Your task to perform on an android device: open app "Grab" (install if not already installed), go to login, and select forgot password Image 0: 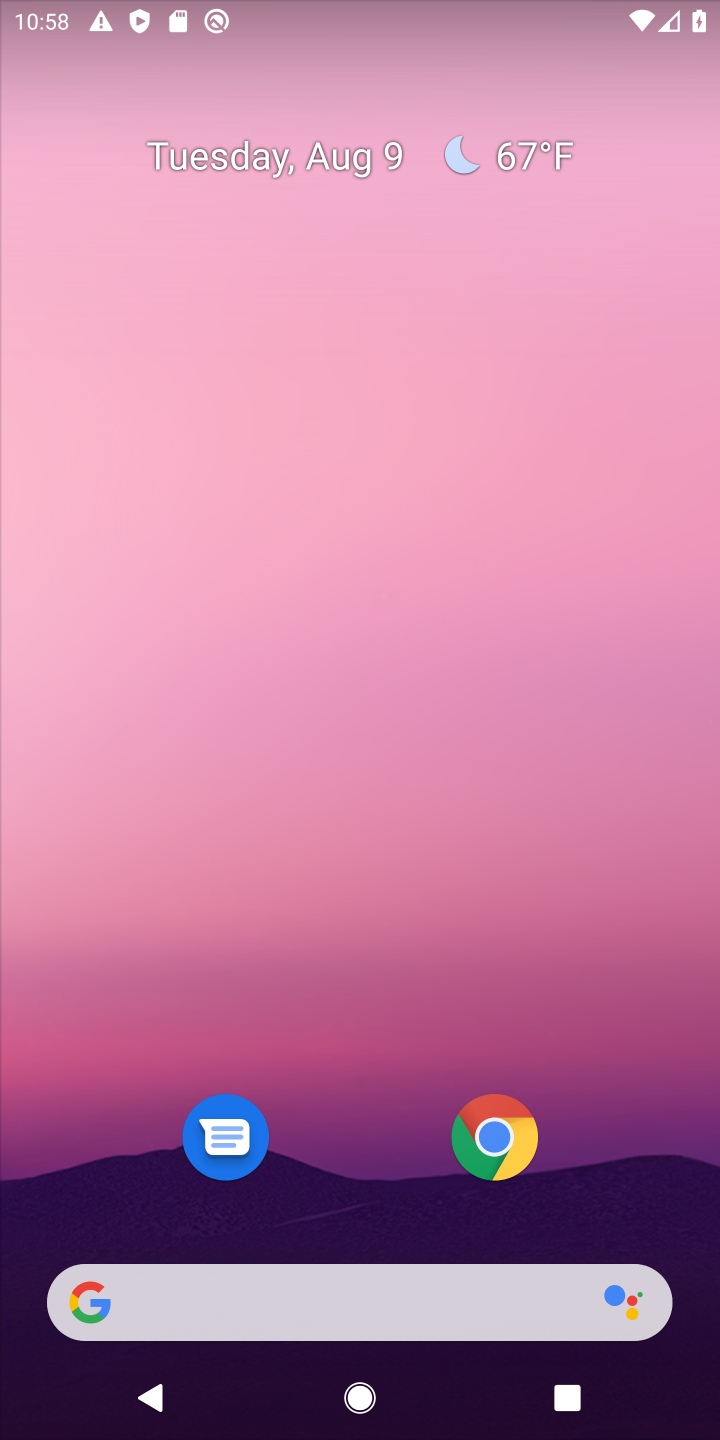
Step 0: drag from (624, 1202) to (381, 24)
Your task to perform on an android device: open app "Grab" (install if not already installed), go to login, and select forgot password Image 1: 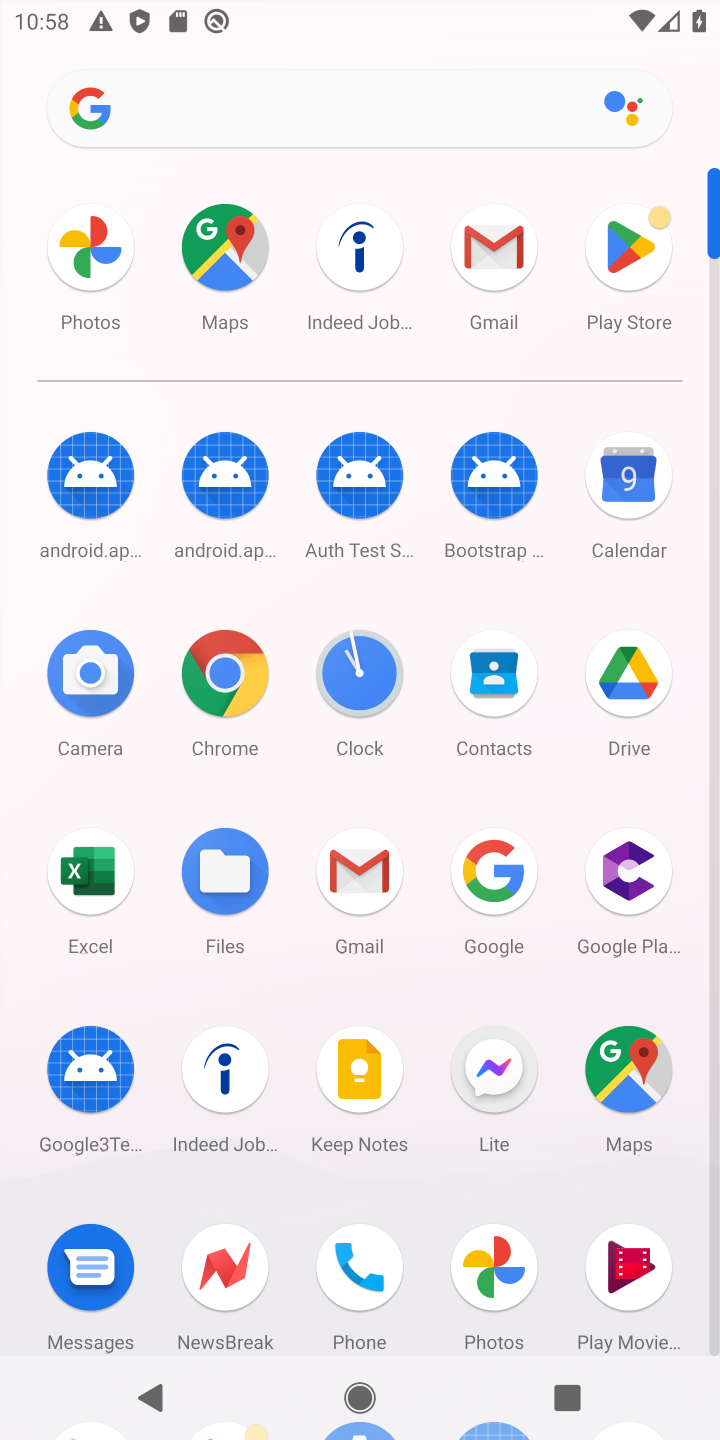
Step 1: click (647, 248)
Your task to perform on an android device: open app "Grab" (install if not already installed), go to login, and select forgot password Image 2: 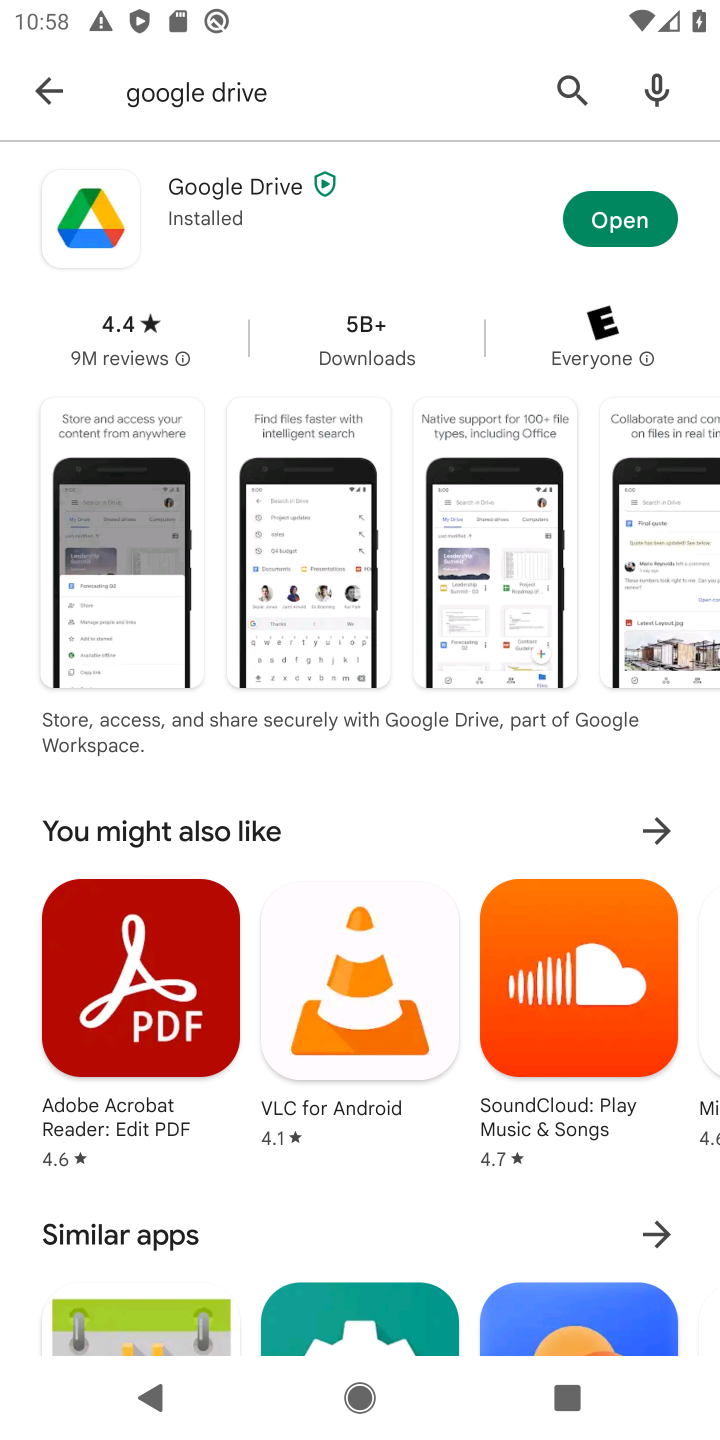
Step 2: press back button
Your task to perform on an android device: open app "Grab" (install if not already installed), go to login, and select forgot password Image 3: 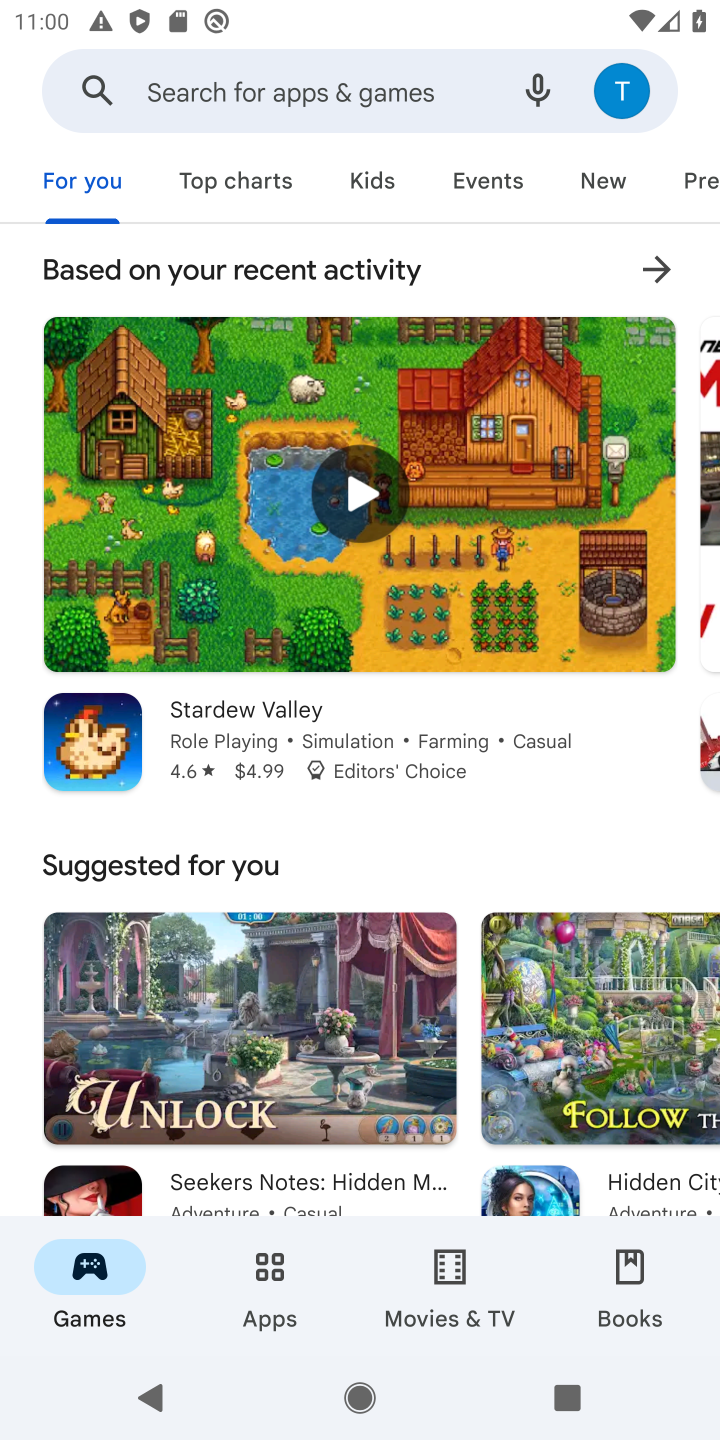
Step 3: click (282, 113)
Your task to perform on an android device: open app "Grab" (install if not already installed), go to login, and select forgot password Image 4: 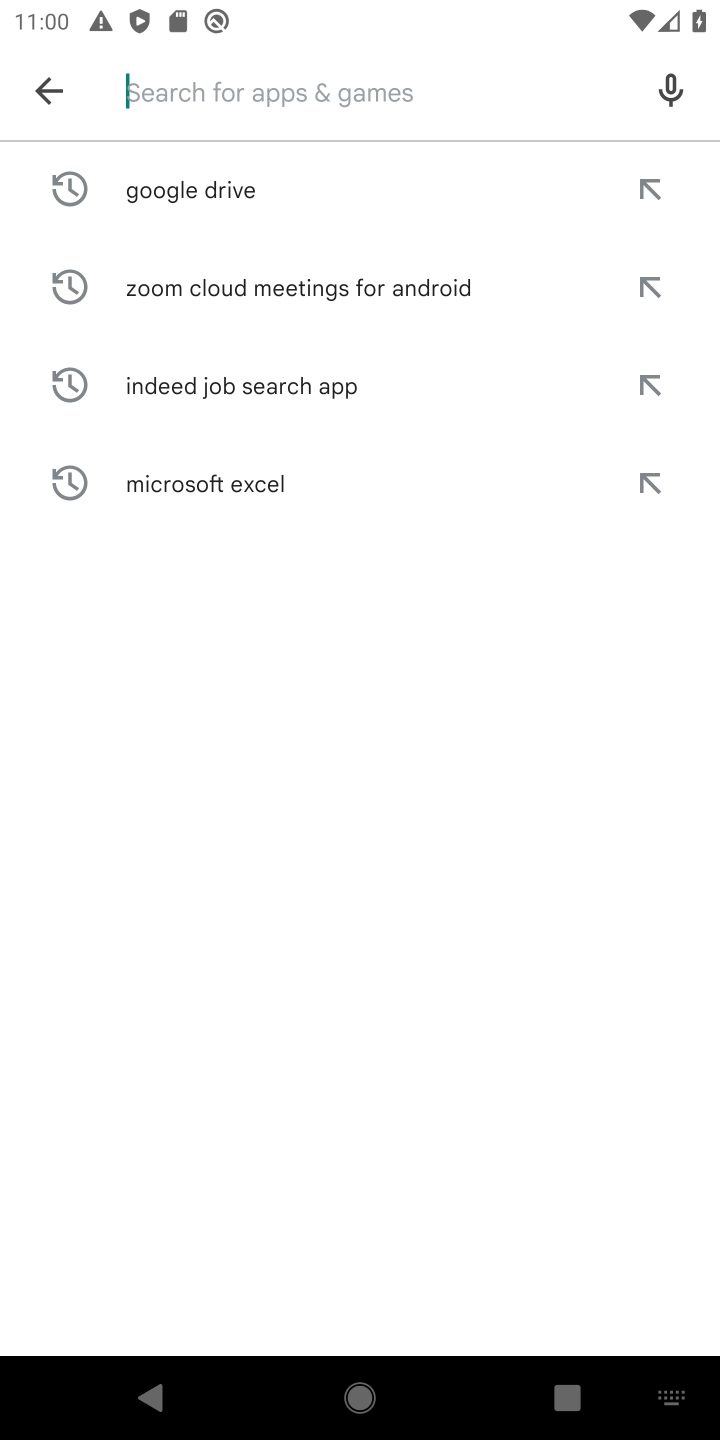
Step 4: type "Grab"
Your task to perform on an android device: open app "Grab" (install if not already installed), go to login, and select forgot password Image 5: 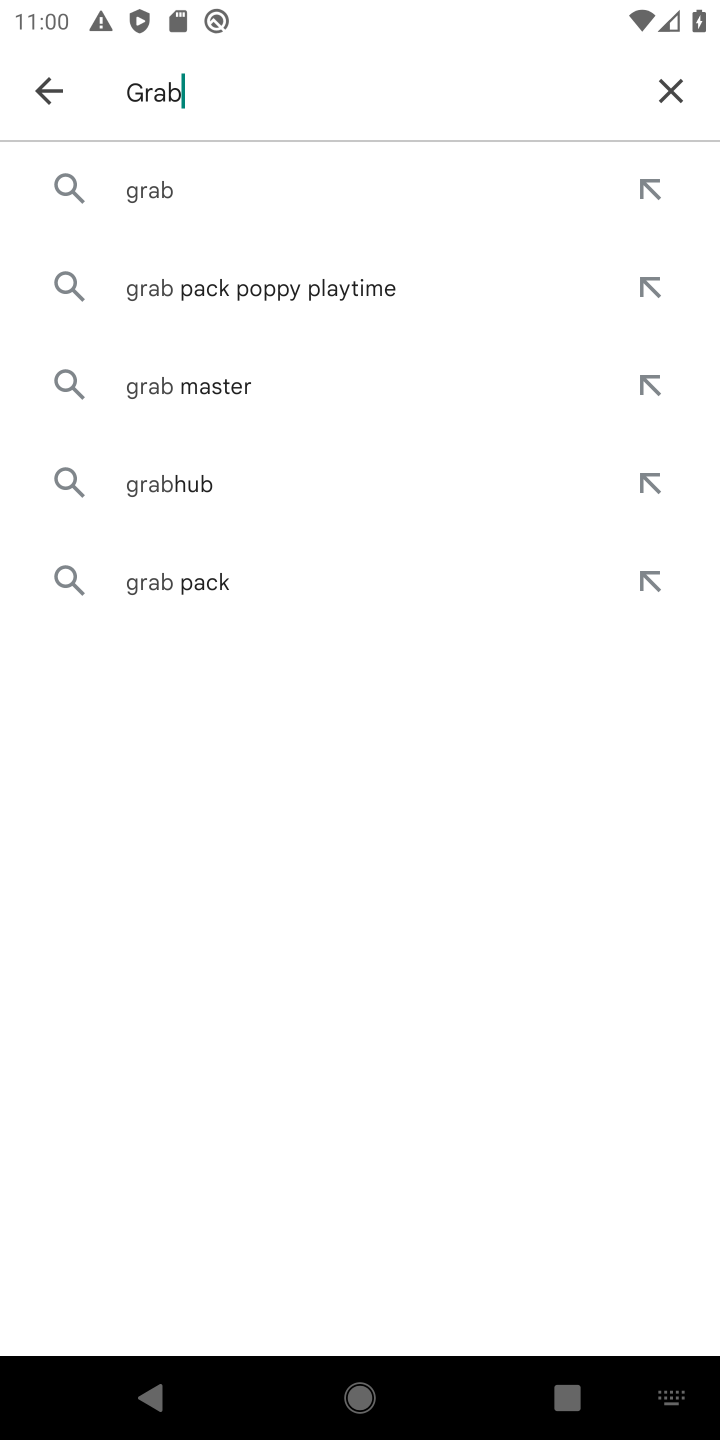
Step 5: click (261, 208)
Your task to perform on an android device: open app "Grab" (install if not already installed), go to login, and select forgot password Image 6: 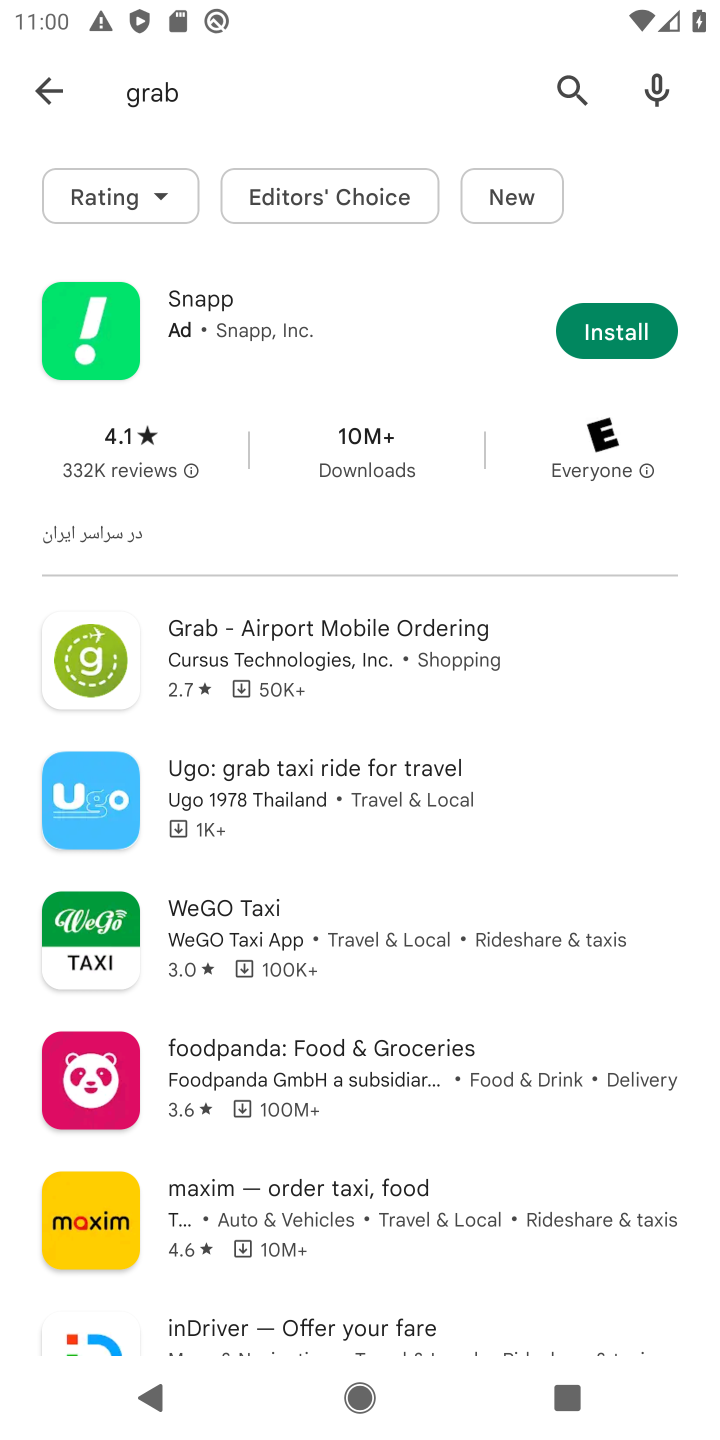
Step 6: task complete